Your task to perform on an android device: Search for pizza restaurants on Maps Image 0: 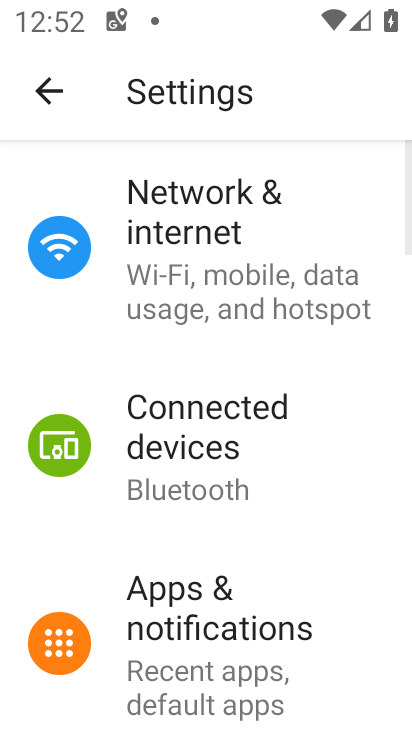
Step 0: press back button
Your task to perform on an android device: Search for pizza restaurants on Maps Image 1: 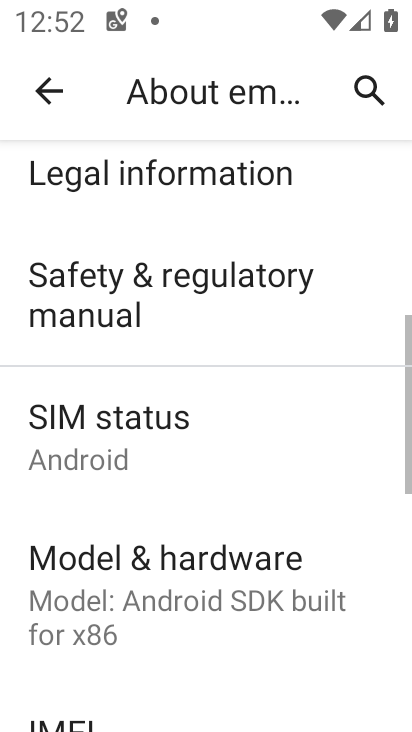
Step 1: press back button
Your task to perform on an android device: Search for pizza restaurants on Maps Image 2: 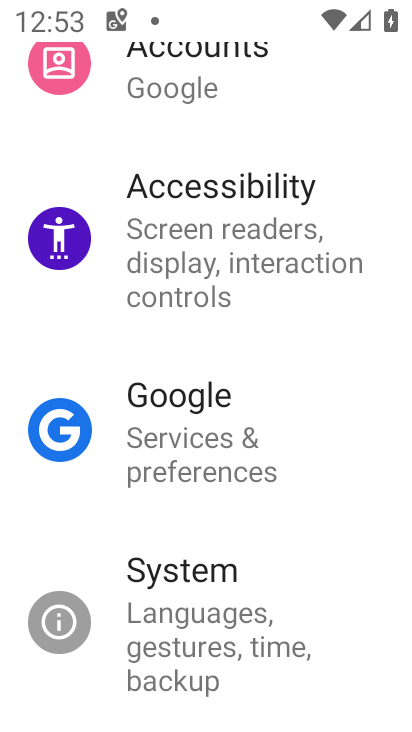
Step 2: press back button
Your task to perform on an android device: Search for pizza restaurants on Maps Image 3: 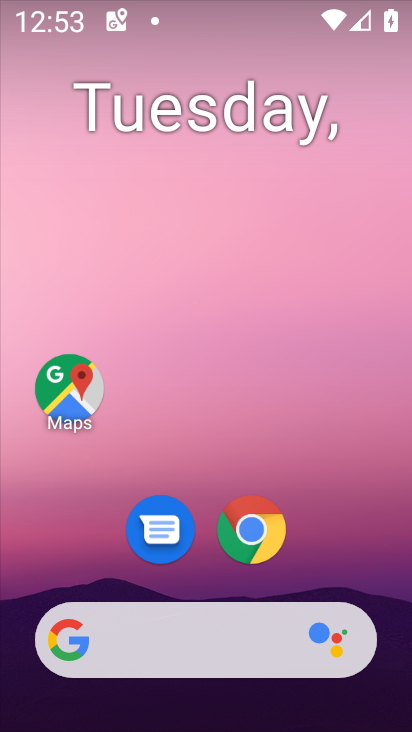
Step 3: click (63, 393)
Your task to perform on an android device: Search for pizza restaurants on Maps Image 4: 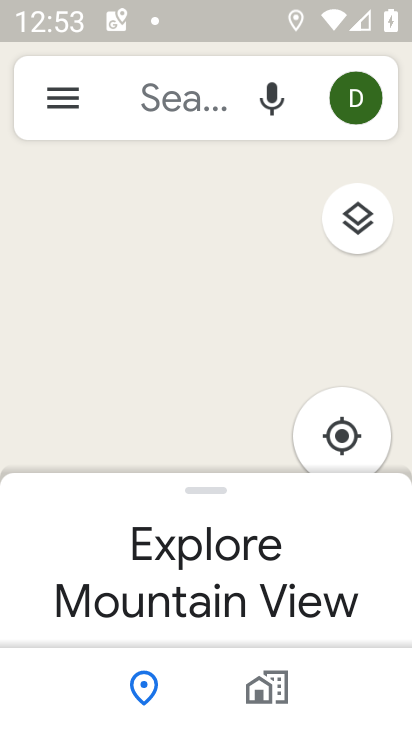
Step 4: click (156, 101)
Your task to perform on an android device: Search for pizza restaurants on Maps Image 5: 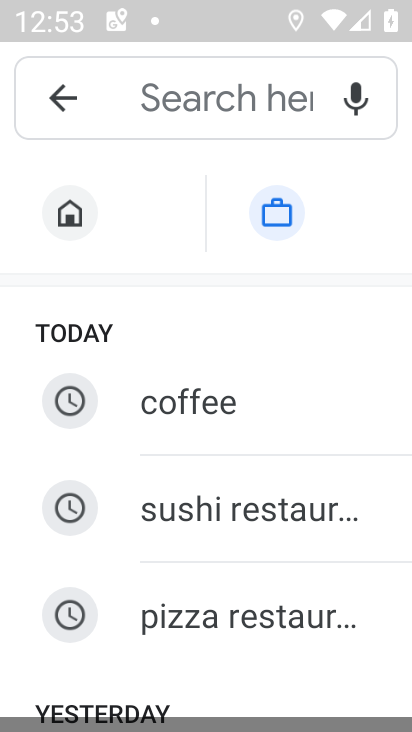
Step 5: click (197, 97)
Your task to perform on an android device: Search for pizza restaurants on Maps Image 6: 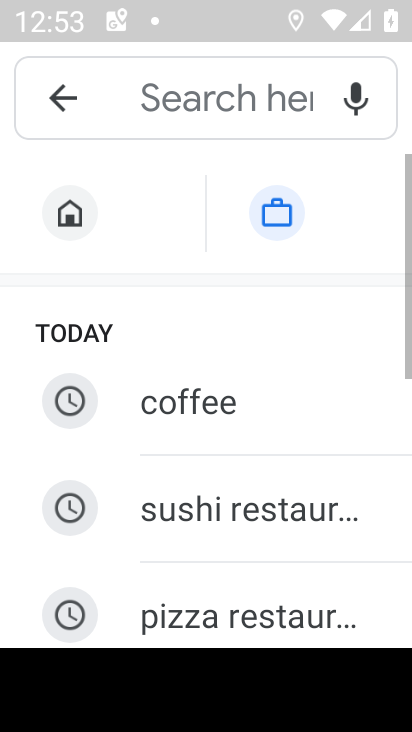
Step 6: click (187, 627)
Your task to perform on an android device: Search for pizza restaurants on Maps Image 7: 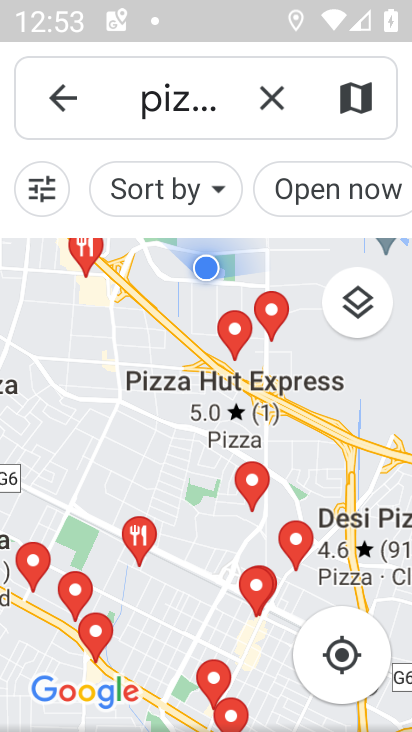
Step 7: task complete